Your task to perform on an android device: install app "LinkedIn" Image 0: 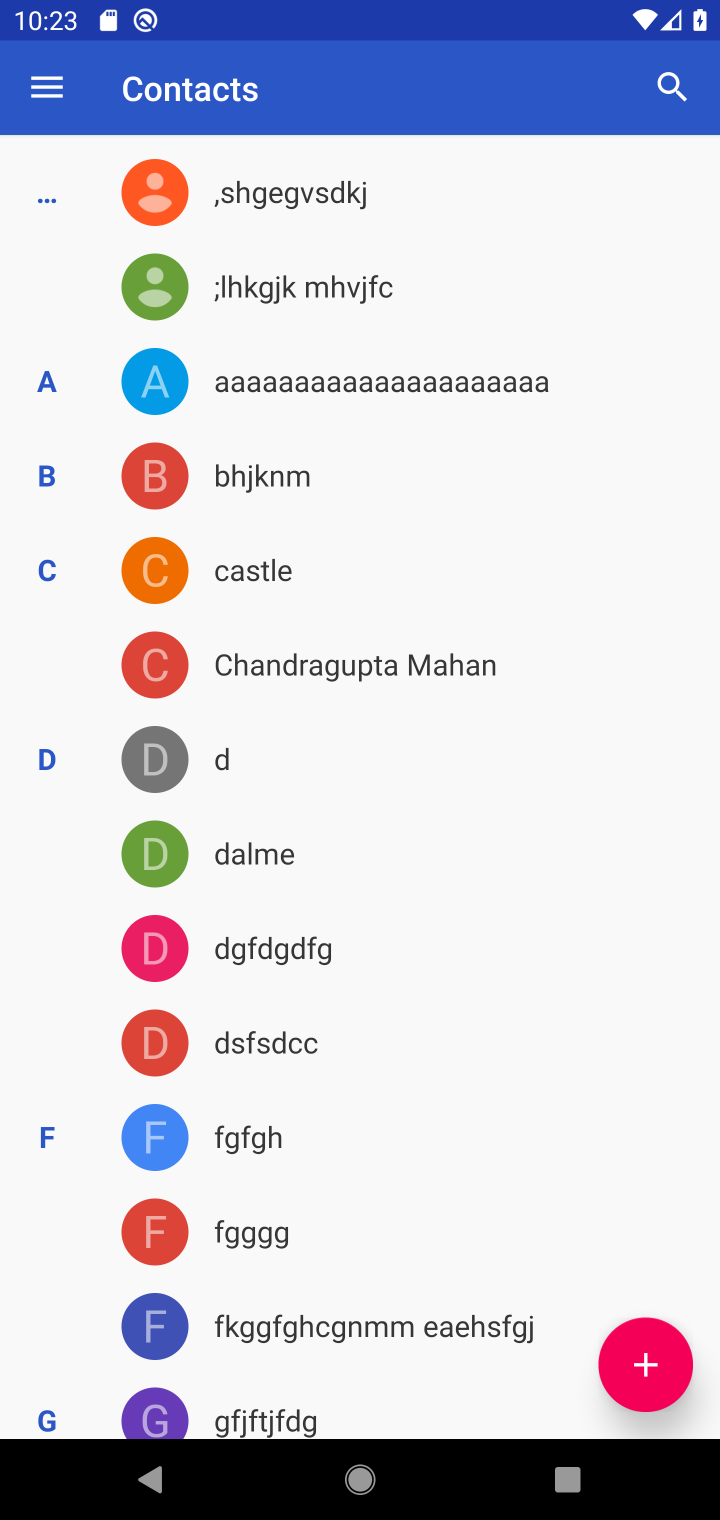
Step 0: press home button
Your task to perform on an android device: install app "LinkedIn" Image 1: 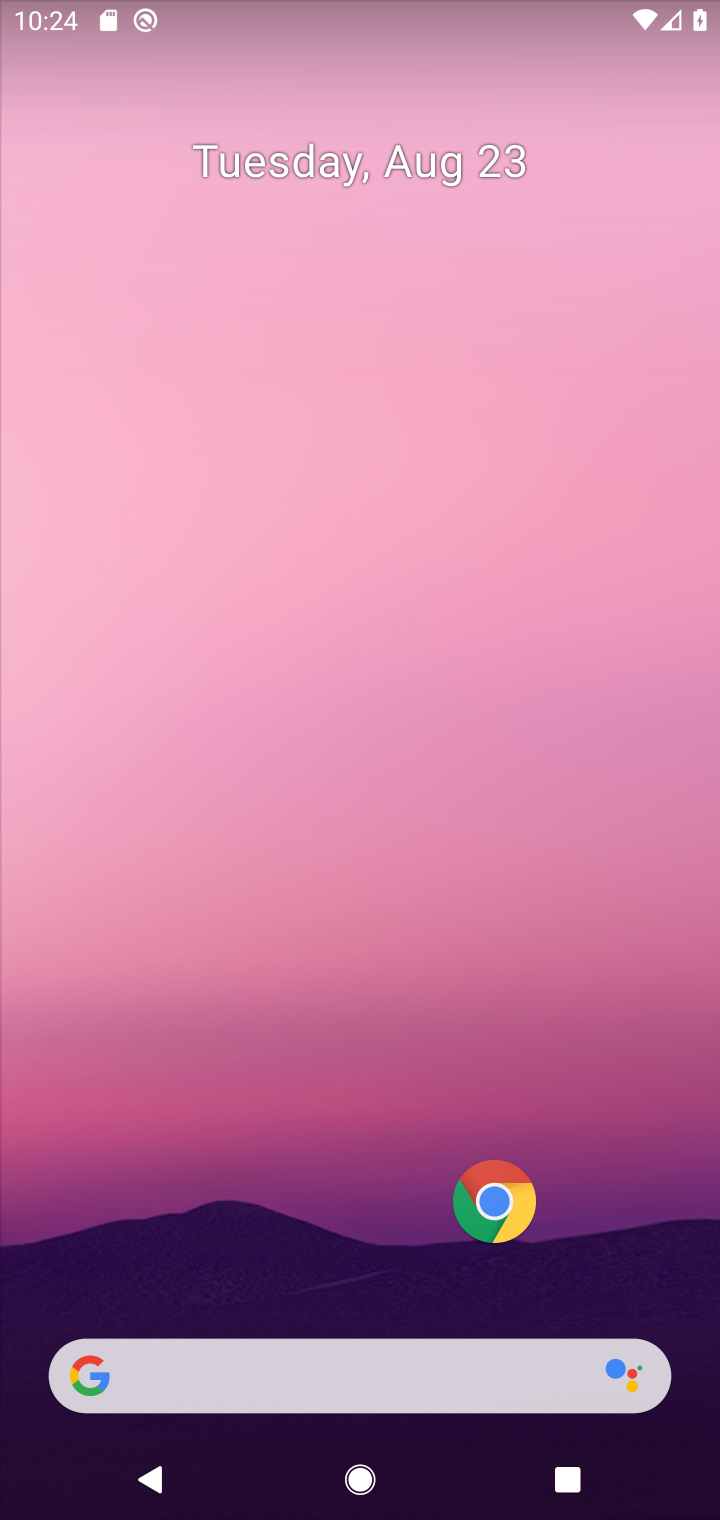
Step 1: drag from (306, 1048) to (359, 262)
Your task to perform on an android device: install app "LinkedIn" Image 2: 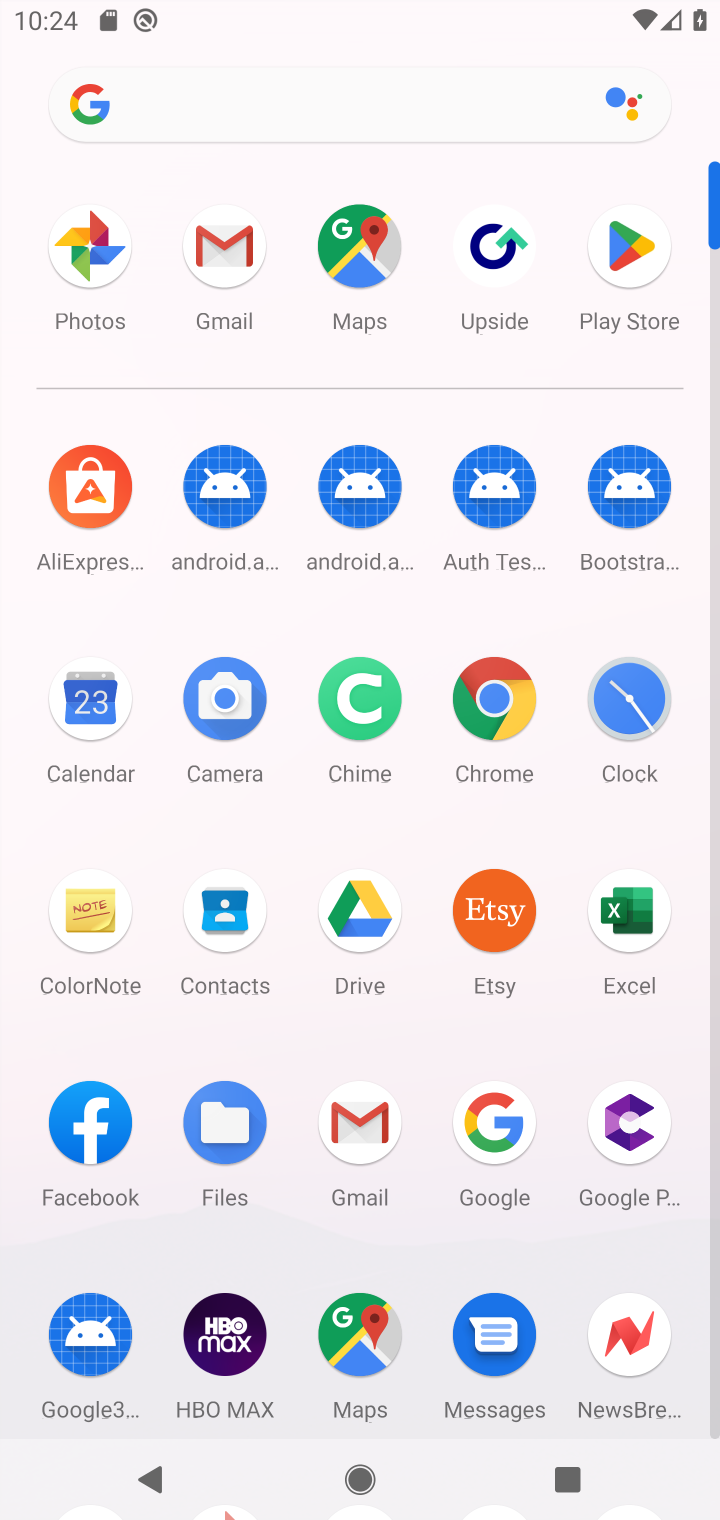
Step 2: click (609, 221)
Your task to perform on an android device: install app "LinkedIn" Image 3: 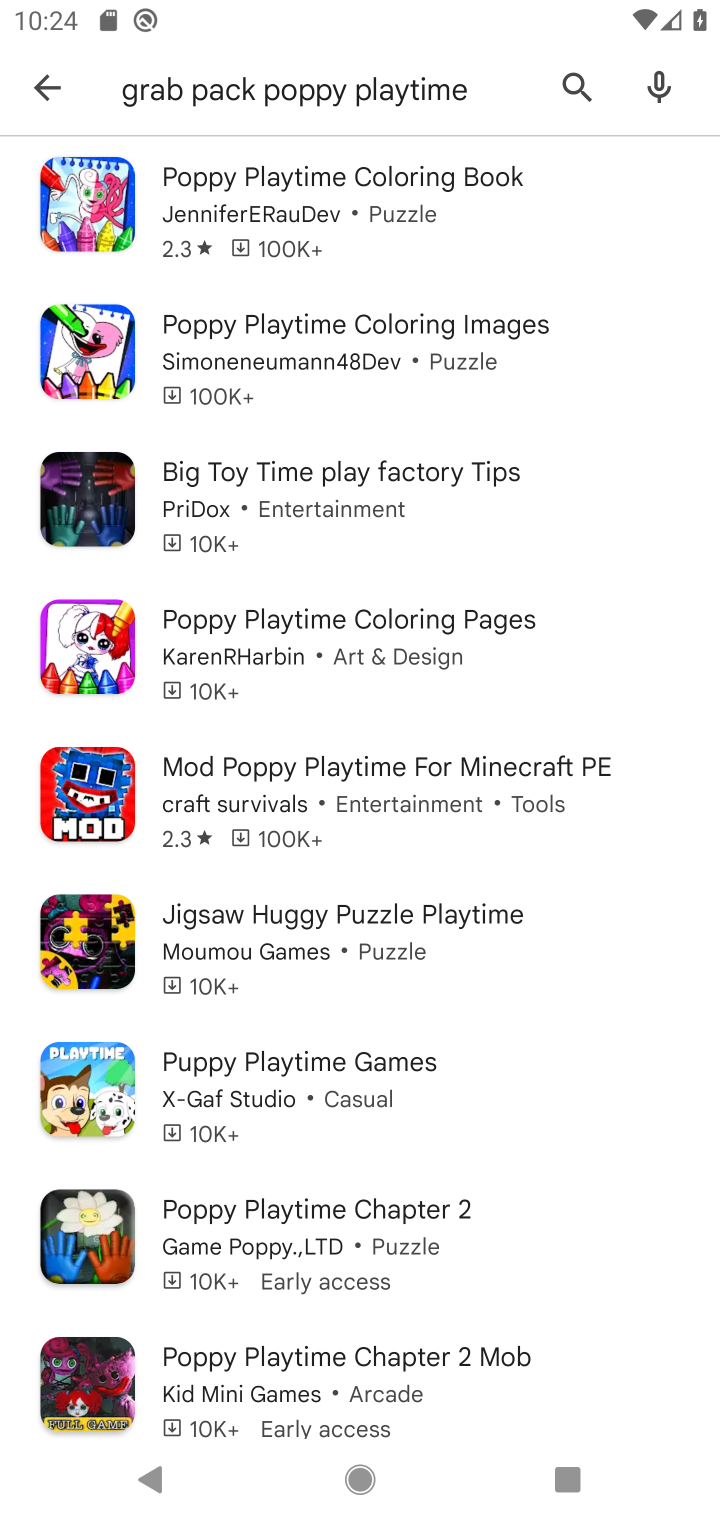
Step 3: click (53, 87)
Your task to perform on an android device: install app "LinkedIn" Image 4: 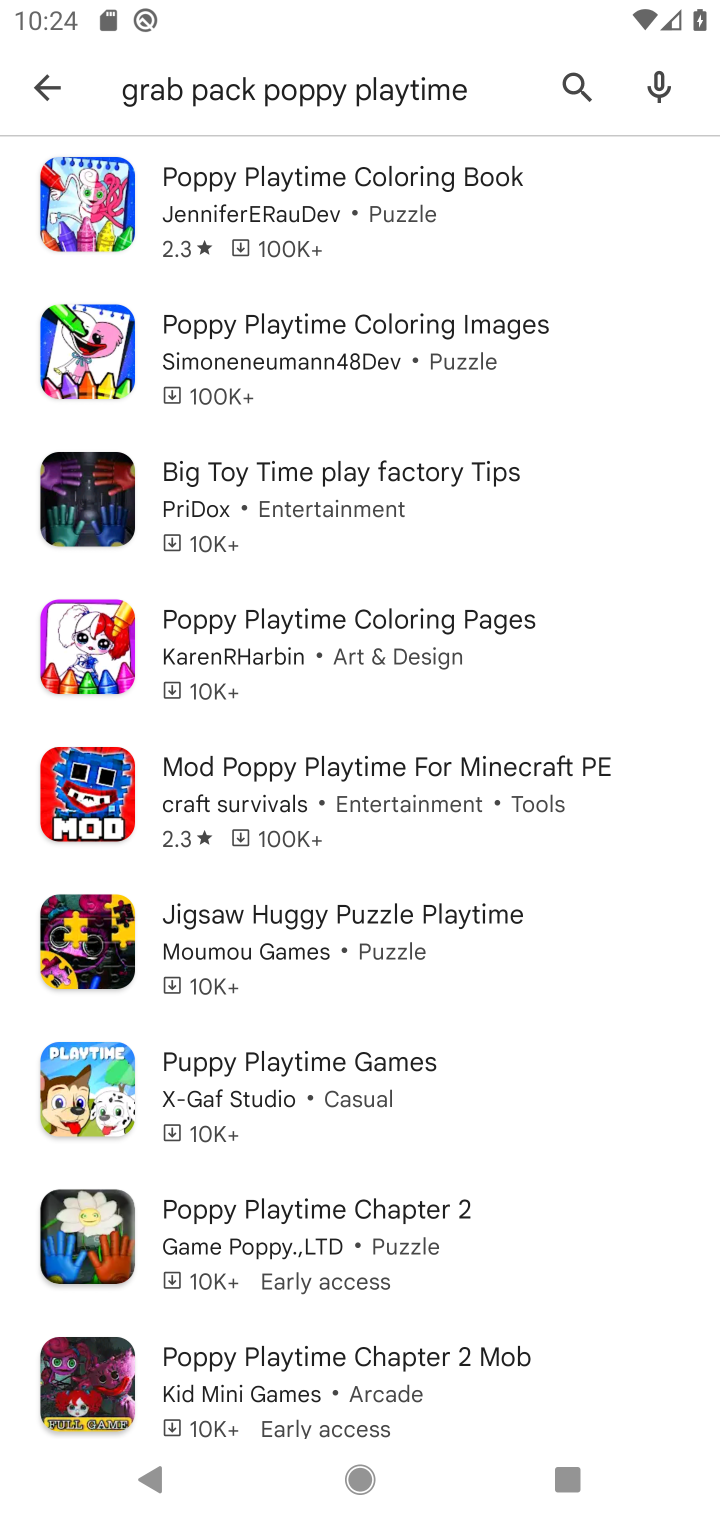
Step 4: click (569, 84)
Your task to perform on an android device: install app "LinkedIn" Image 5: 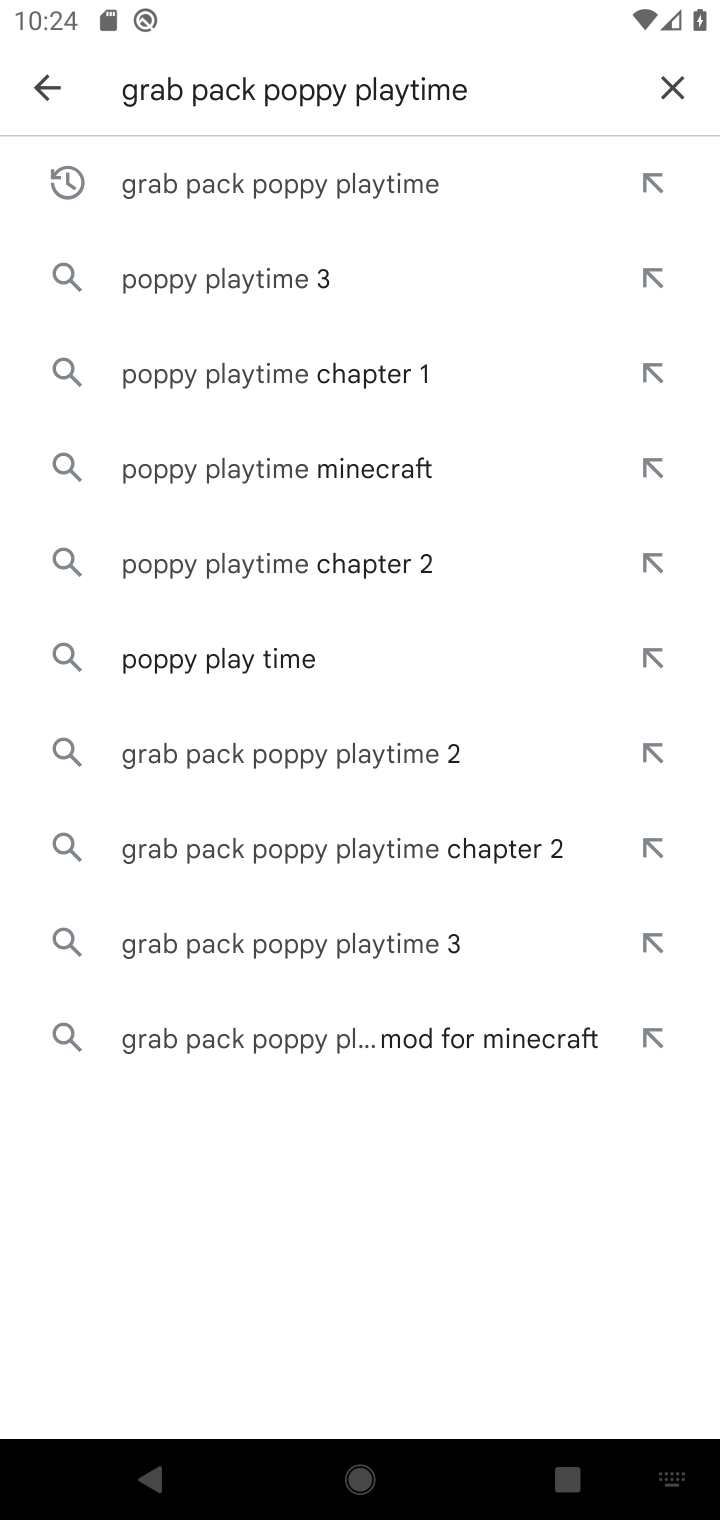
Step 5: click (679, 118)
Your task to perform on an android device: install app "LinkedIn" Image 6: 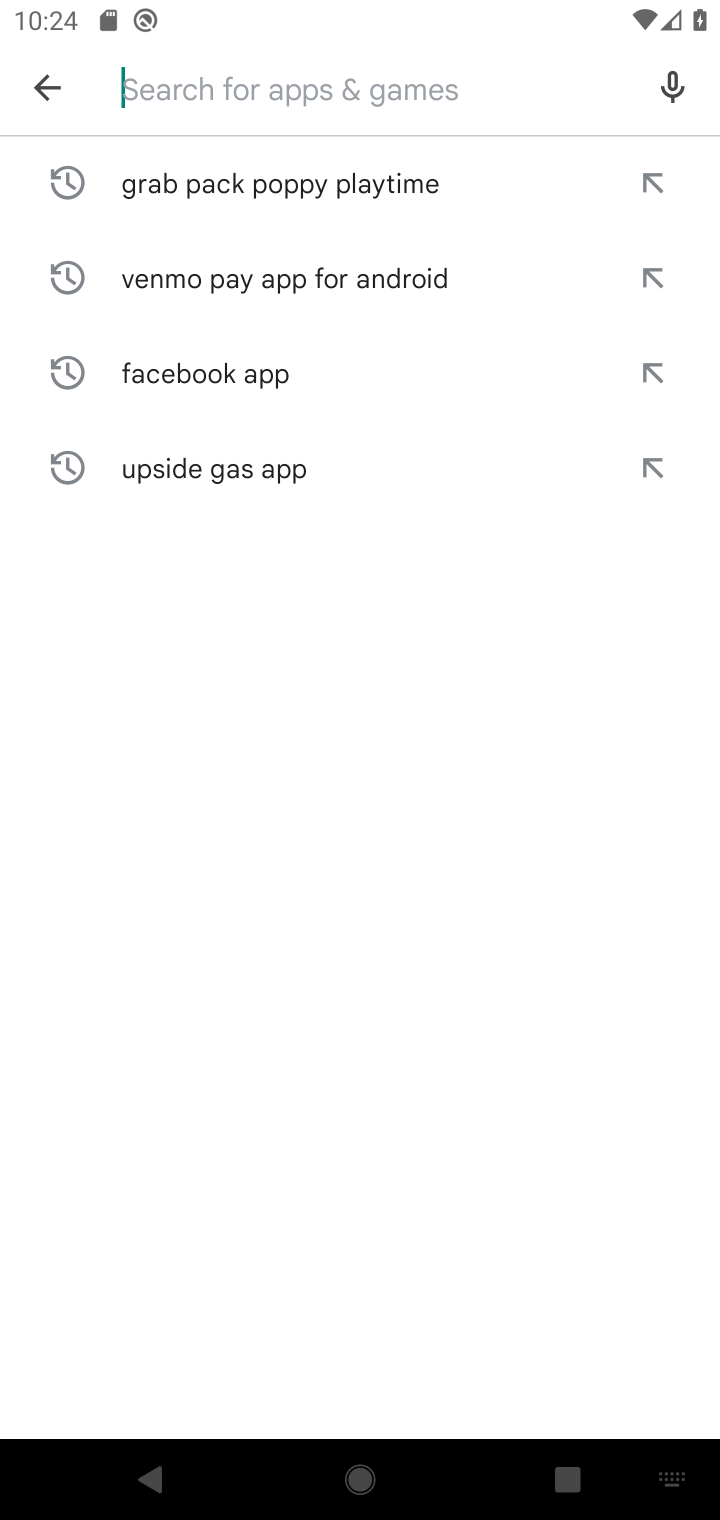
Step 6: click (241, 91)
Your task to perform on an android device: install app "LinkedIn" Image 7: 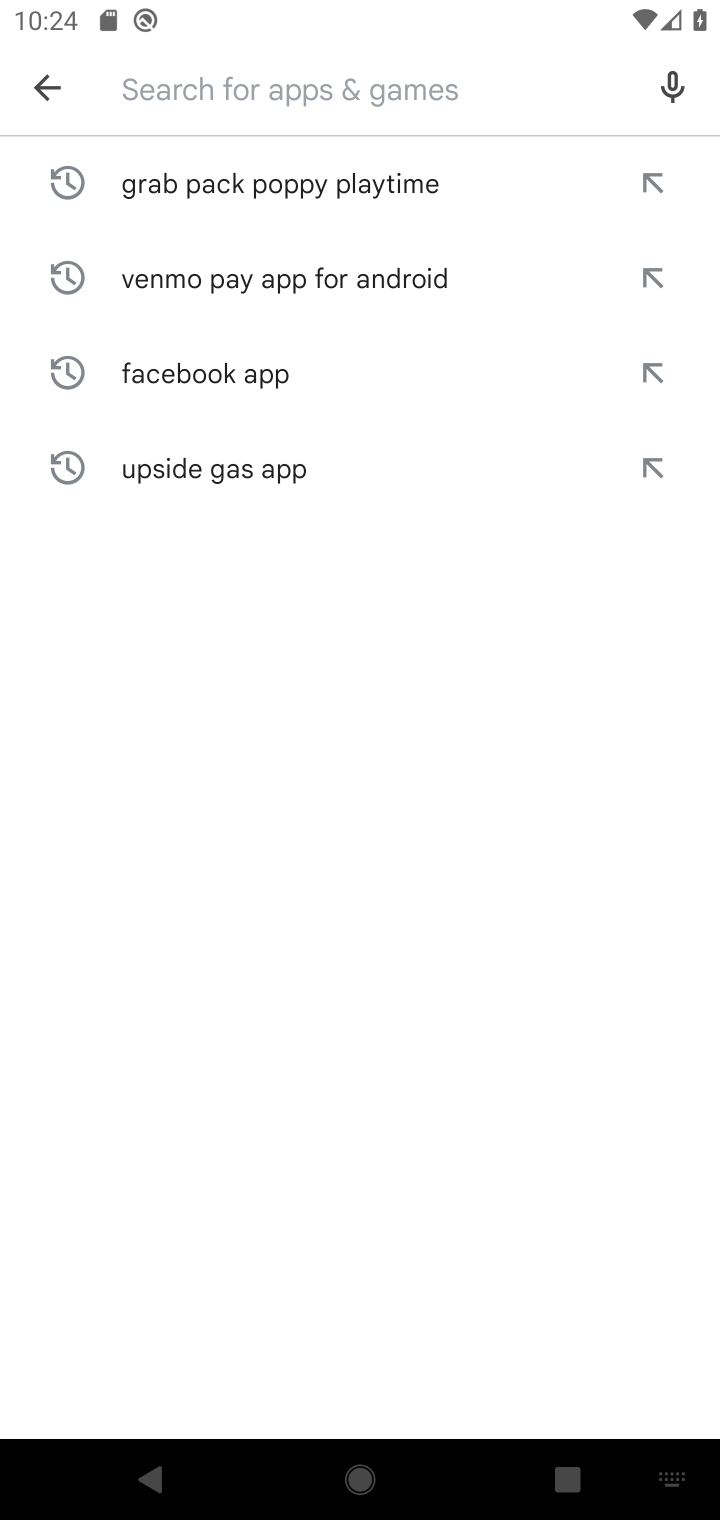
Step 7: type "LinkedIn "
Your task to perform on an android device: install app "LinkedIn" Image 8: 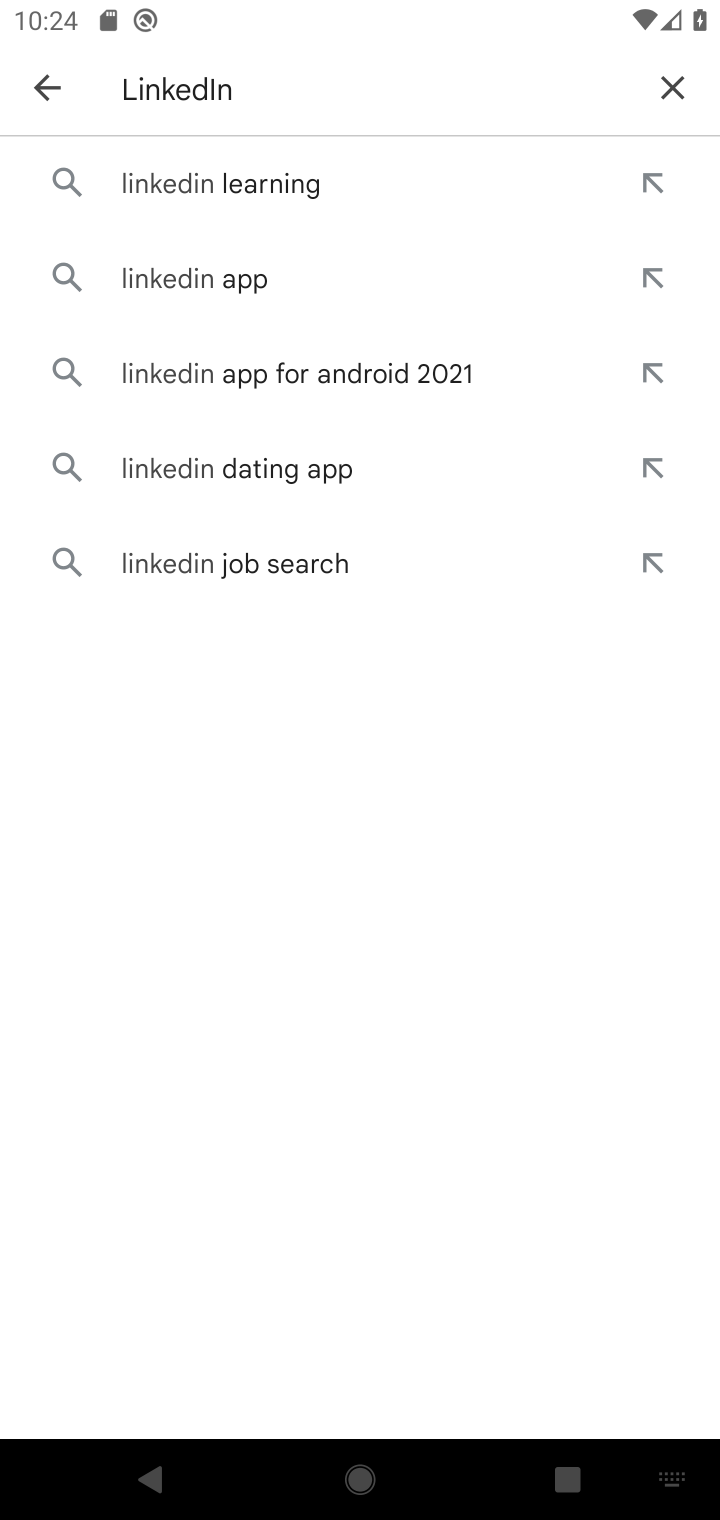
Step 8: click (294, 296)
Your task to perform on an android device: install app "LinkedIn" Image 9: 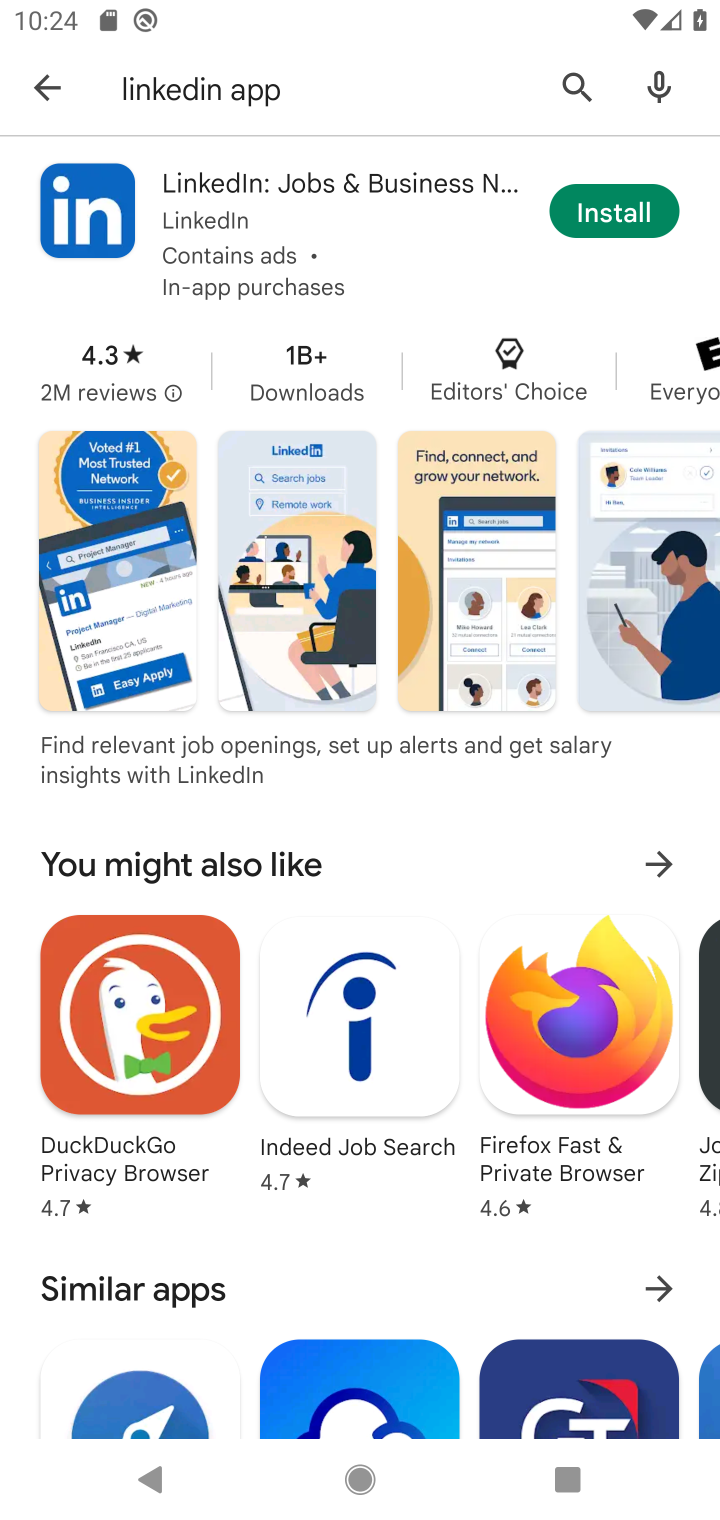
Step 9: click (653, 199)
Your task to perform on an android device: install app "LinkedIn" Image 10: 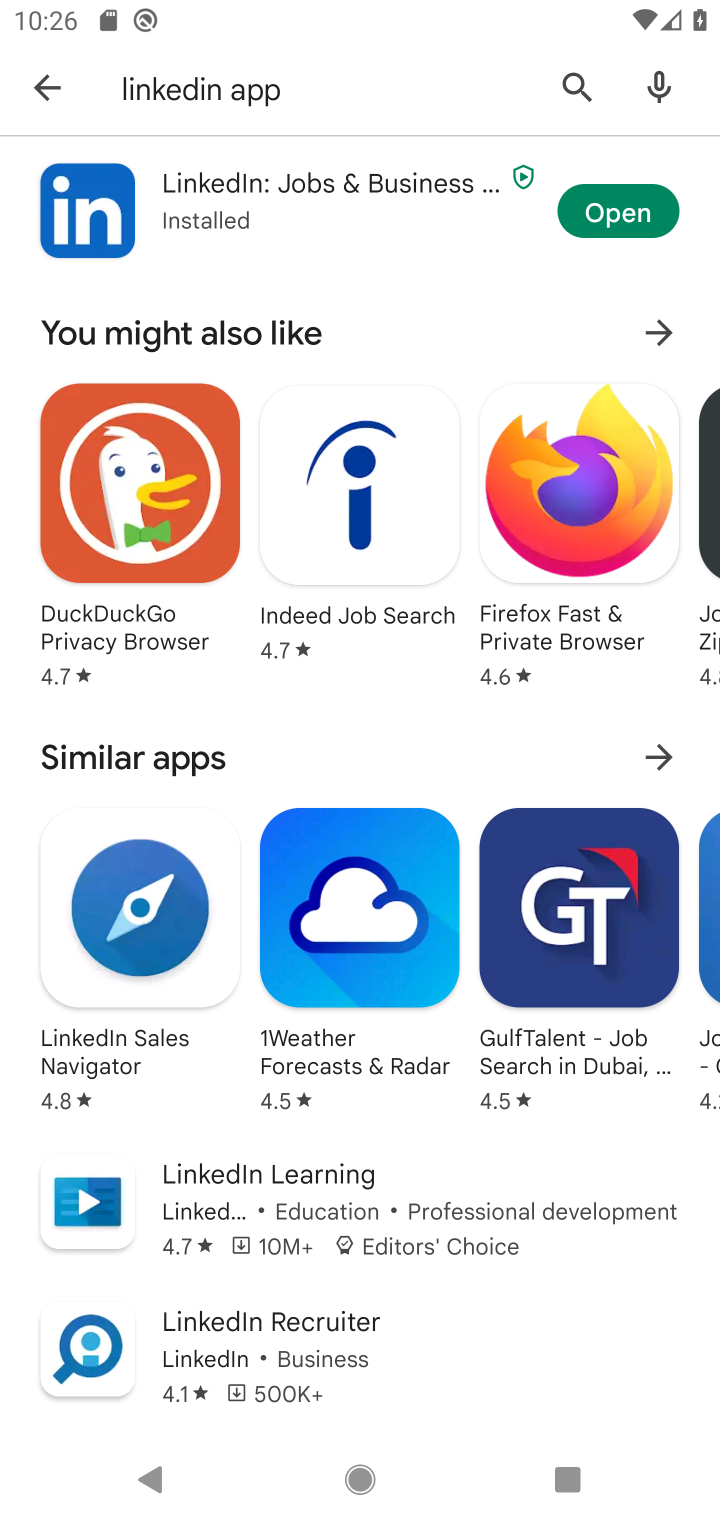
Step 10: task complete